Your task to perform on an android device: Go to Google Image 0: 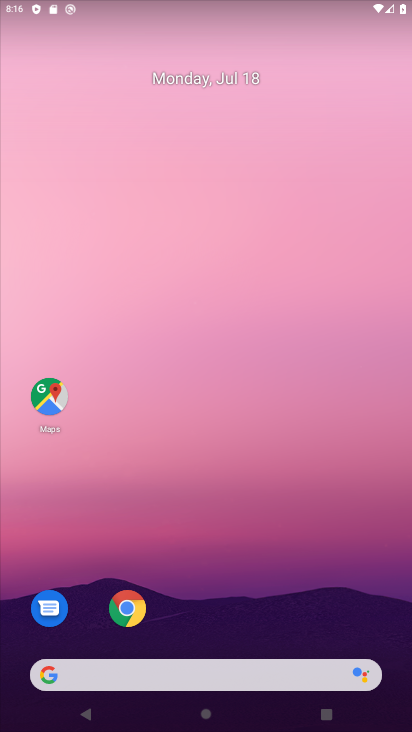
Step 0: drag from (244, 668) to (226, 139)
Your task to perform on an android device: Go to Google Image 1: 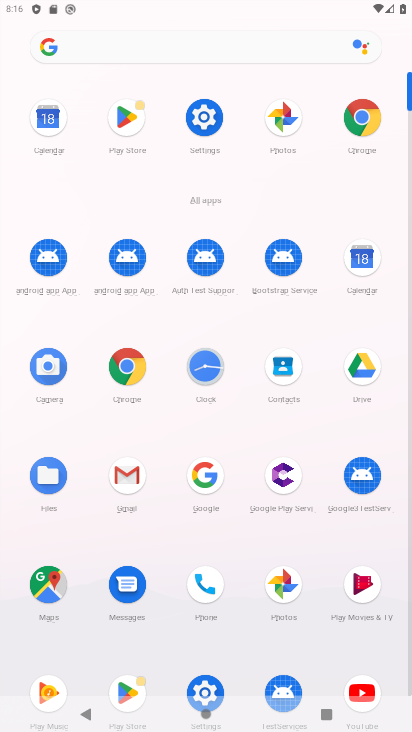
Step 1: click (195, 474)
Your task to perform on an android device: Go to Google Image 2: 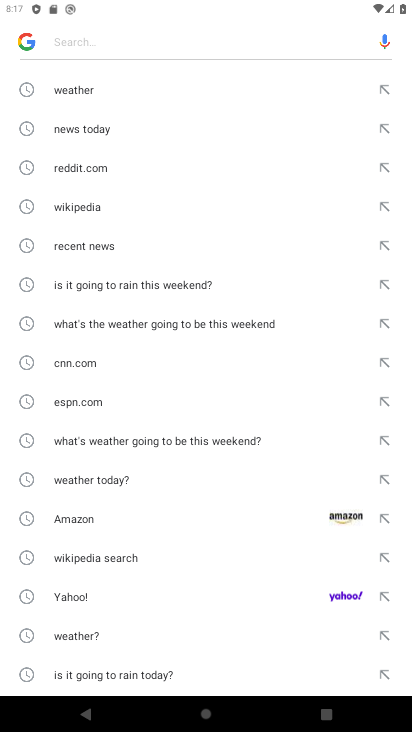
Step 2: task complete